Your task to perform on an android device: remove spam from my inbox in the gmail app Image 0: 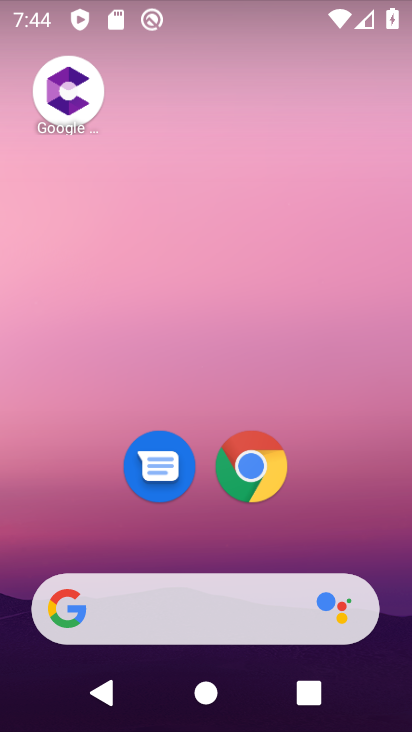
Step 0: drag from (169, 536) to (255, 78)
Your task to perform on an android device: remove spam from my inbox in the gmail app Image 1: 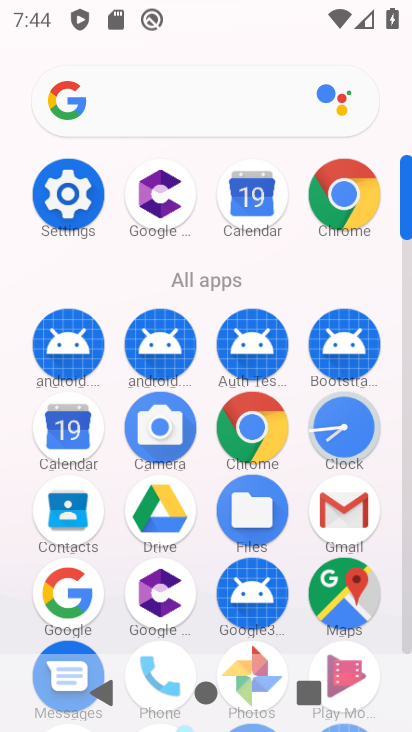
Step 1: click (341, 506)
Your task to perform on an android device: remove spam from my inbox in the gmail app Image 2: 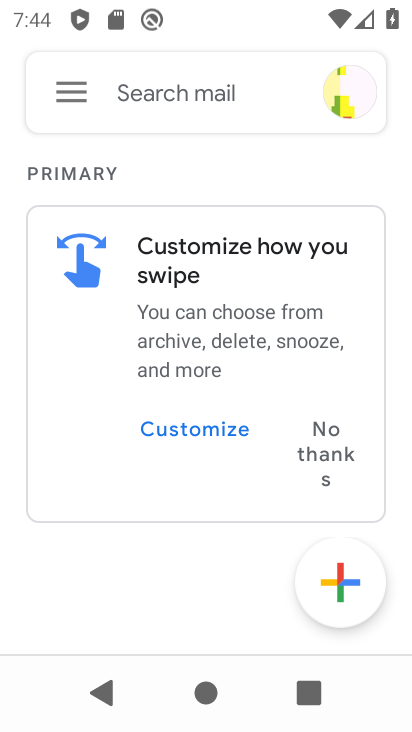
Step 2: click (73, 88)
Your task to perform on an android device: remove spam from my inbox in the gmail app Image 3: 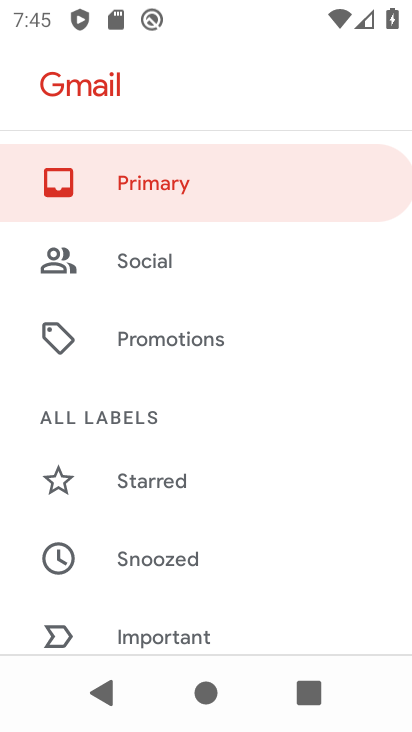
Step 3: drag from (271, 608) to (316, 228)
Your task to perform on an android device: remove spam from my inbox in the gmail app Image 4: 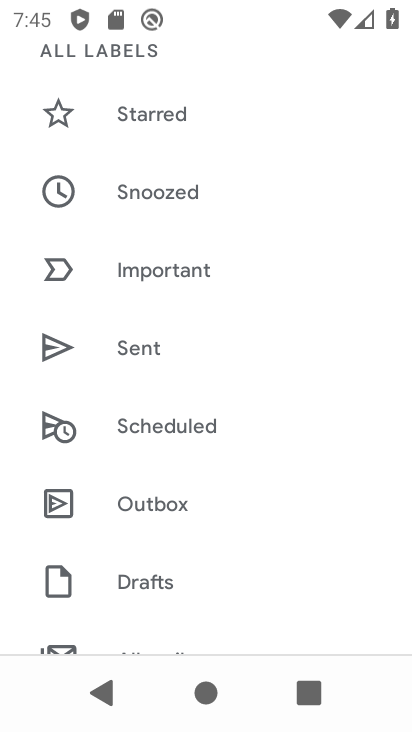
Step 4: drag from (229, 593) to (322, 202)
Your task to perform on an android device: remove spam from my inbox in the gmail app Image 5: 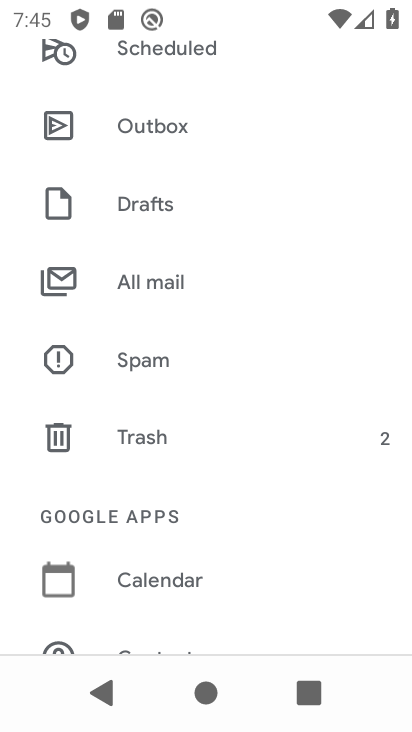
Step 5: drag from (243, 571) to (277, 231)
Your task to perform on an android device: remove spam from my inbox in the gmail app Image 6: 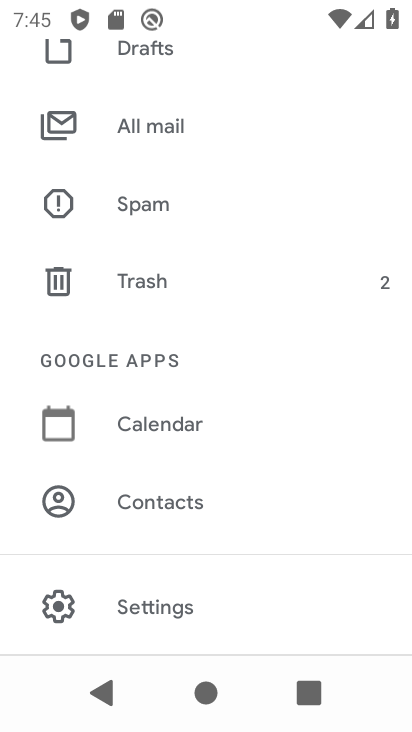
Step 6: click (160, 196)
Your task to perform on an android device: remove spam from my inbox in the gmail app Image 7: 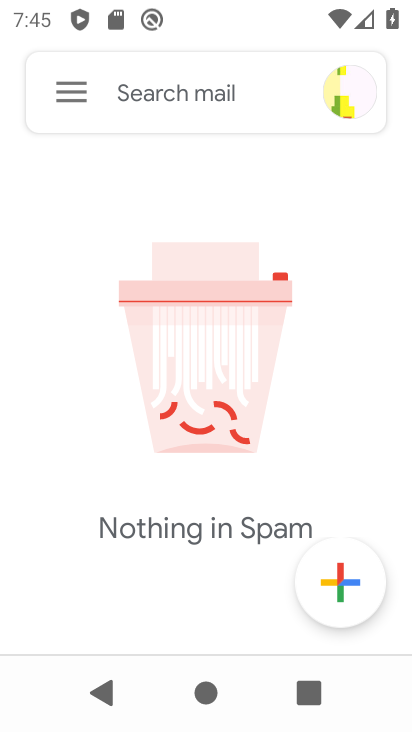
Step 7: task complete